Your task to perform on an android device: turn on location history Image 0: 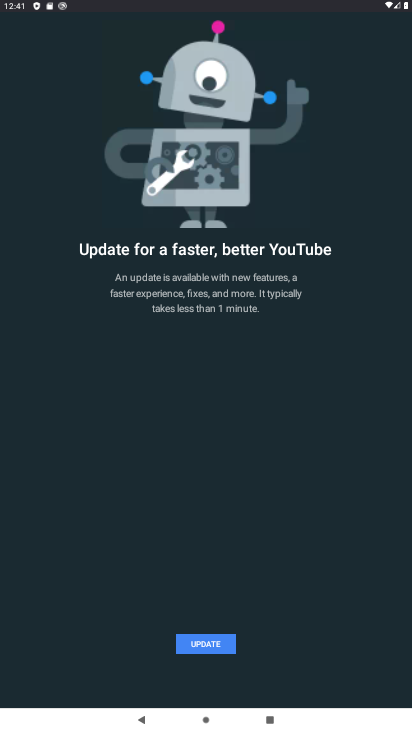
Step 0: press back button
Your task to perform on an android device: turn on location history Image 1: 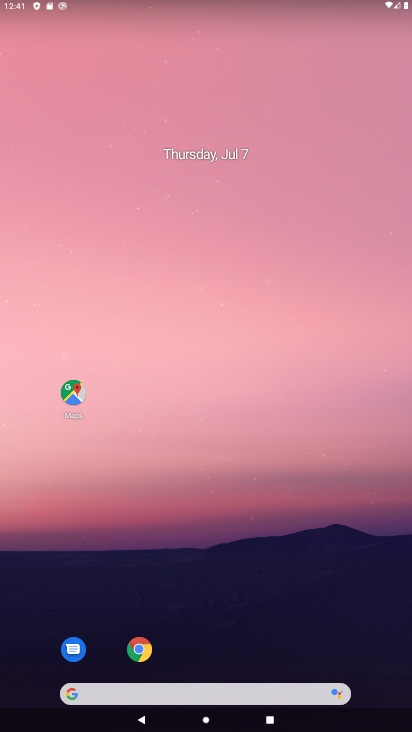
Step 1: drag from (257, 658) to (254, 190)
Your task to perform on an android device: turn on location history Image 2: 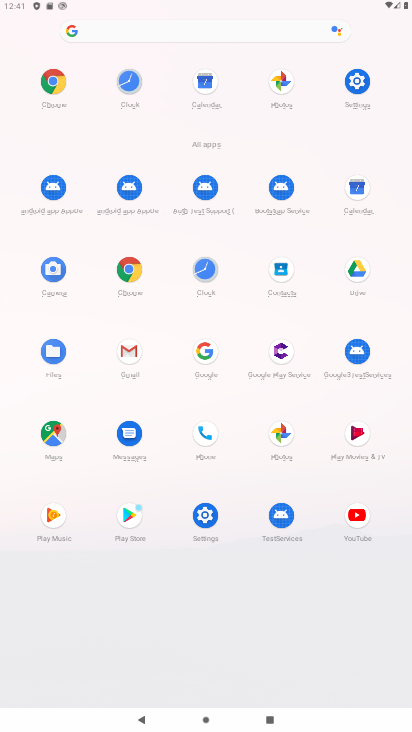
Step 2: click (213, 511)
Your task to perform on an android device: turn on location history Image 3: 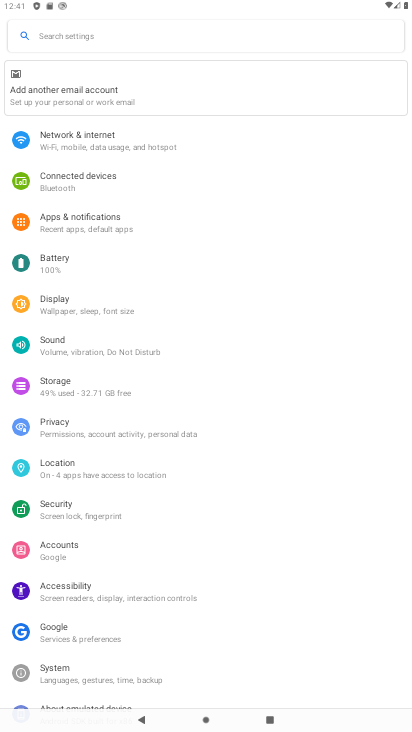
Step 3: click (95, 477)
Your task to perform on an android device: turn on location history Image 4: 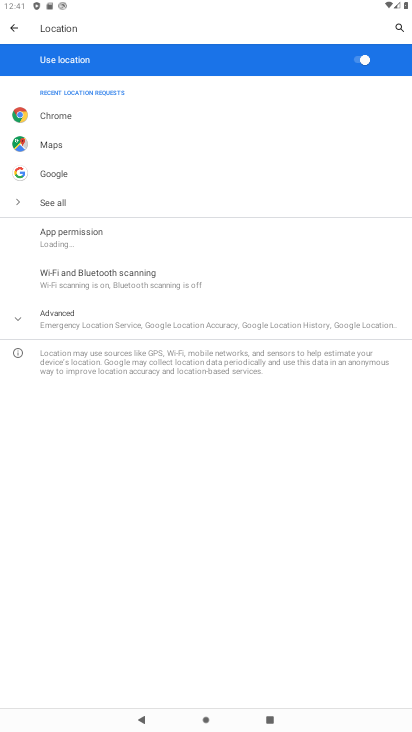
Step 4: click (53, 297)
Your task to perform on an android device: turn on location history Image 5: 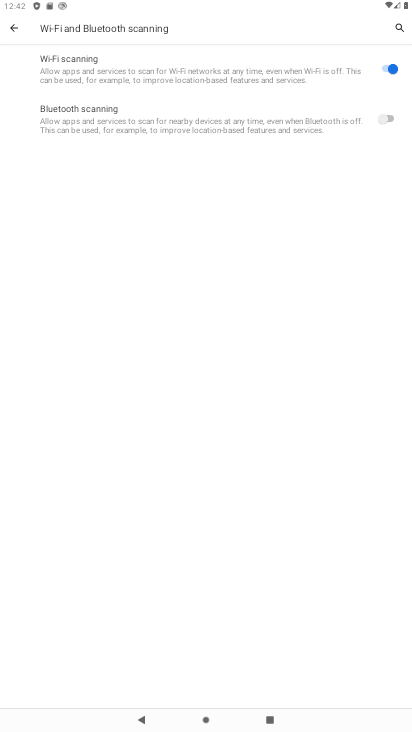
Step 5: task complete